Your task to perform on an android device: turn off location history Image 0: 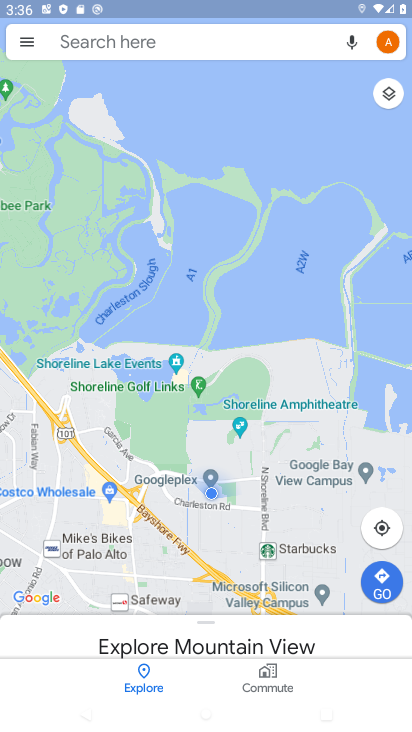
Step 0: press home button
Your task to perform on an android device: turn off location history Image 1: 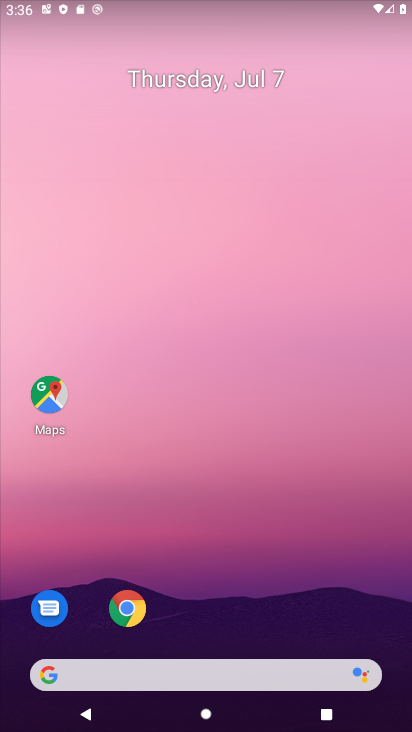
Step 1: click (48, 393)
Your task to perform on an android device: turn off location history Image 2: 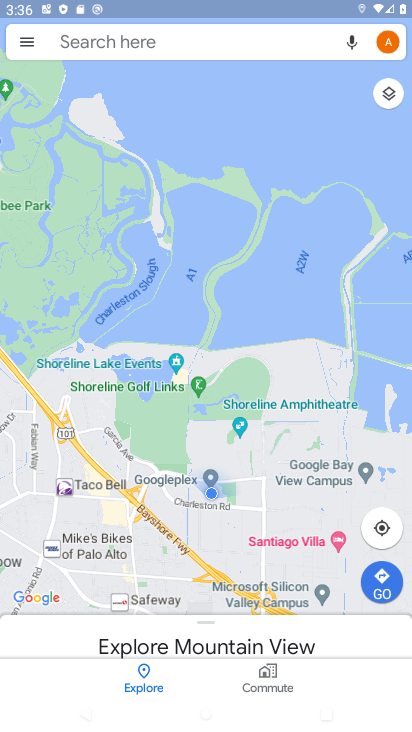
Step 2: click (25, 36)
Your task to perform on an android device: turn off location history Image 3: 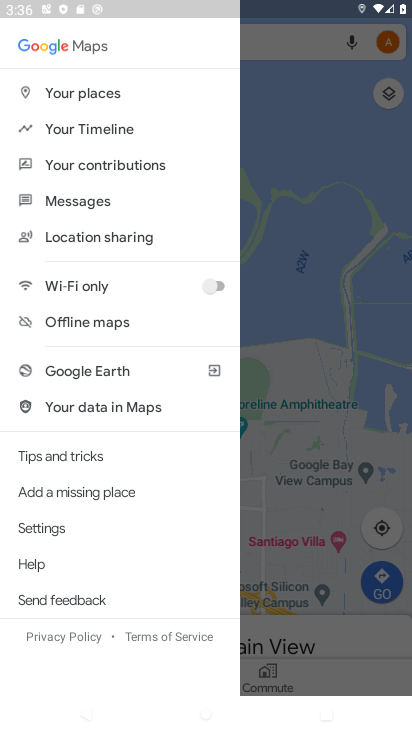
Step 3: click (40, 526)
Your task to perform on an android device: turn off location history Image 4: 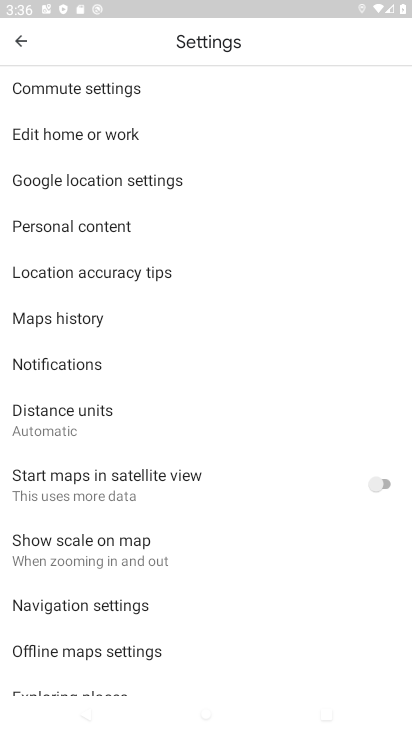
Step 4: click (59, 218)
Your task to perform on an android device: turn off location history Image 5: 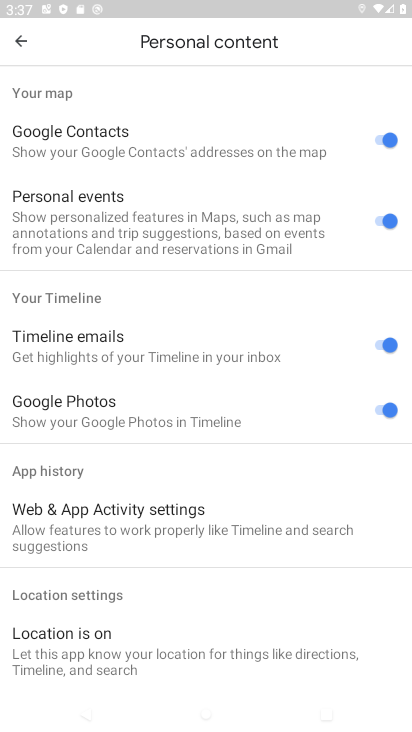
Step 5: task complete